Your task to perform on an android device: Open the map Image 0: 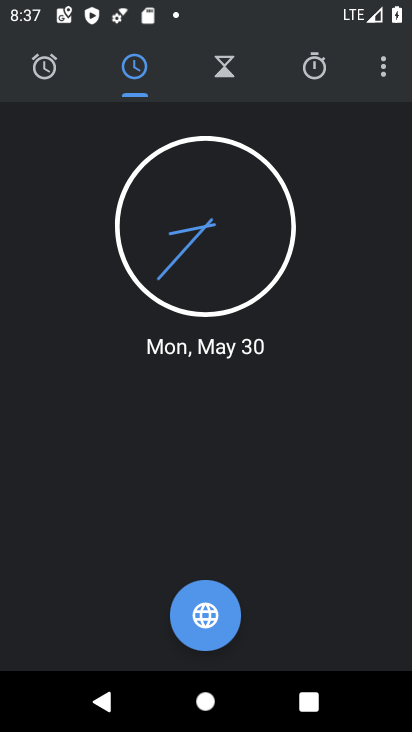
Step 0: press home button
Your task to perform on an android device: Open the map Image 1: 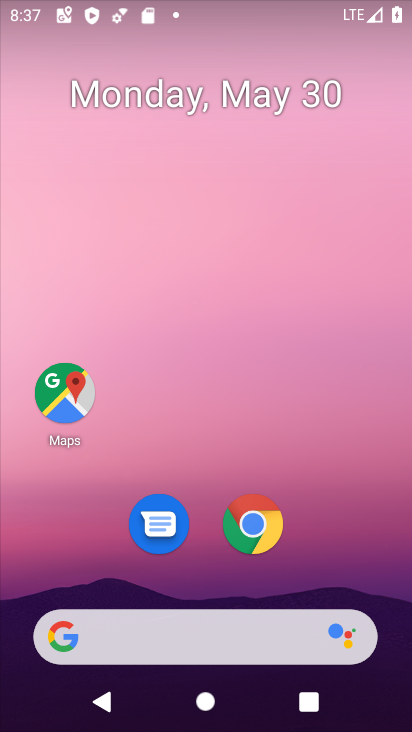
Step 1: click (59, 388)
Your task to perform on an android device: Open the map Image 2: 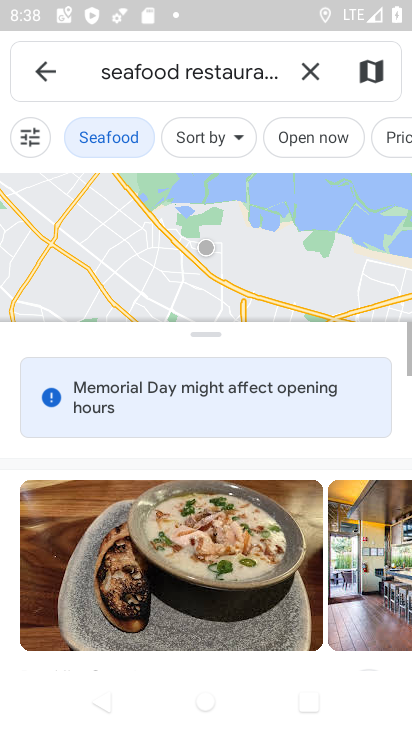
Step 2: click (312, 66)
Your task to perform on an android device: Open the map Image 3: 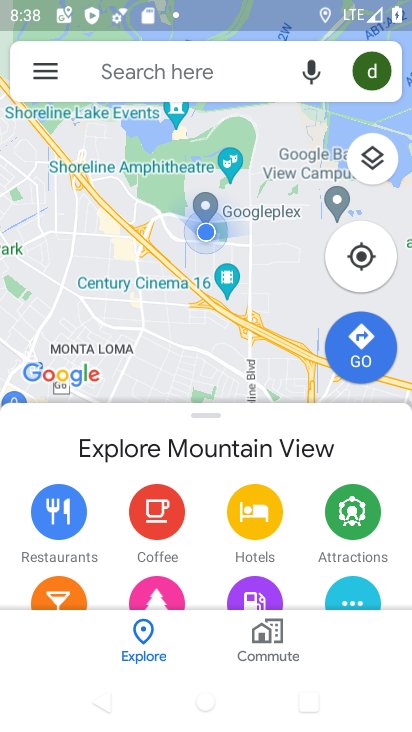
Step 3: task complete